Your task to perform on an android device: Go to Wikipedia Image 0: 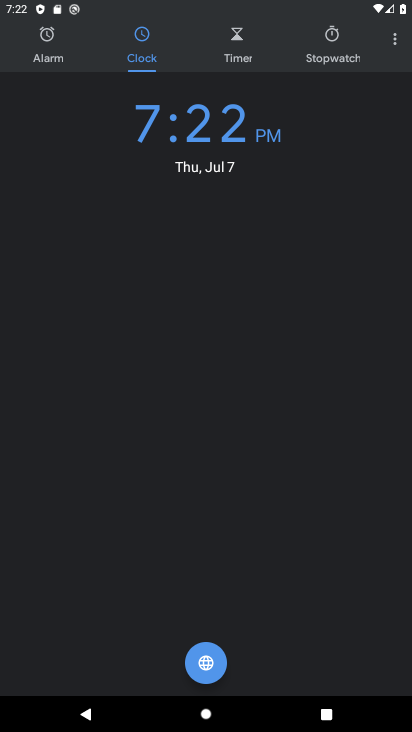
Step 0: press home button
Your task to perform on an android device: Go to Wikipedia Image 1: 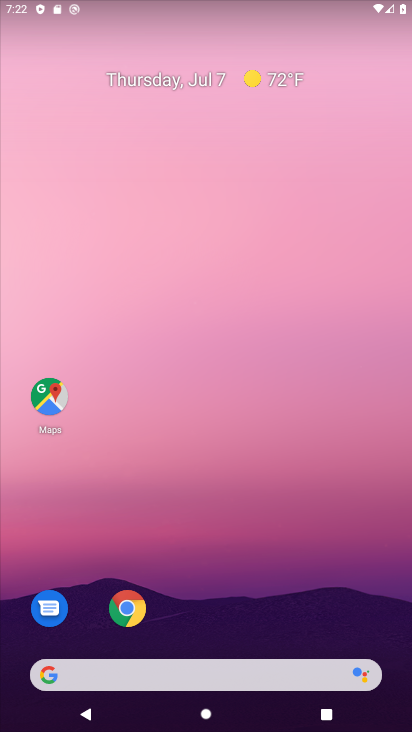
Step 1: click (136, 610)
Your task to perform on an android device: Go to Wikipedia Image 2: 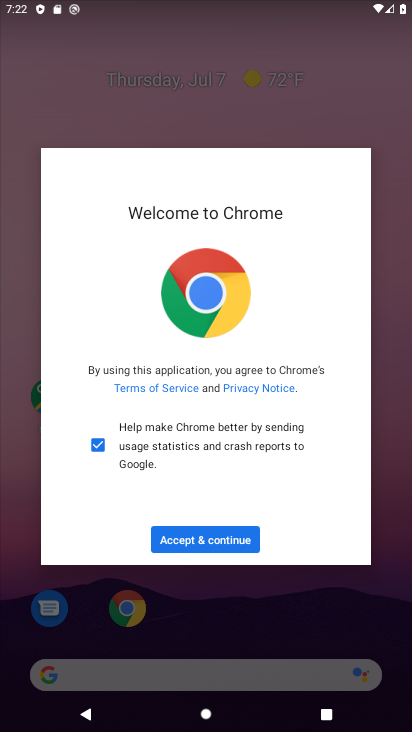
Step 2: click (253, 538)
Your task to perform on an android device: Go to Wikipedia Image 3: 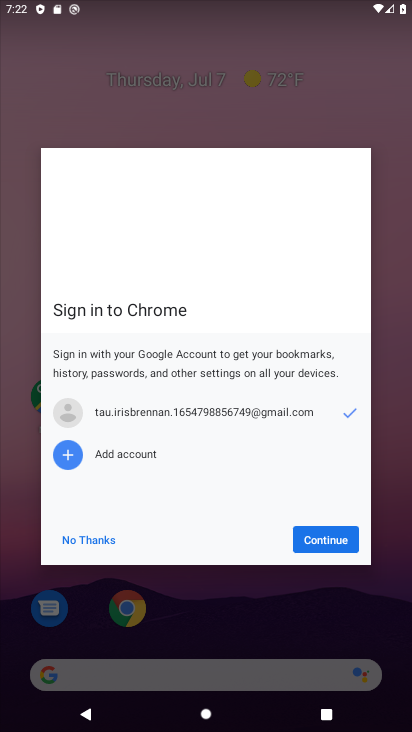
Step 3: click (347, 543)
Your task to perform on an android device: Go to Wikipedia Image 4: 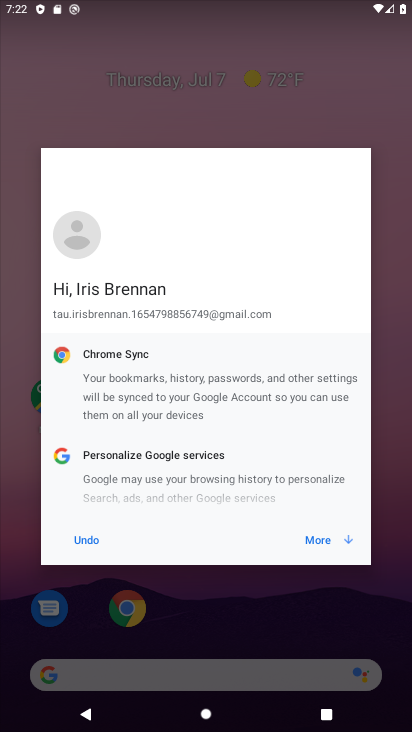
Step 4: click (326, 542)
Your task to perform on an android device: Go to Wikipedia Image 5: 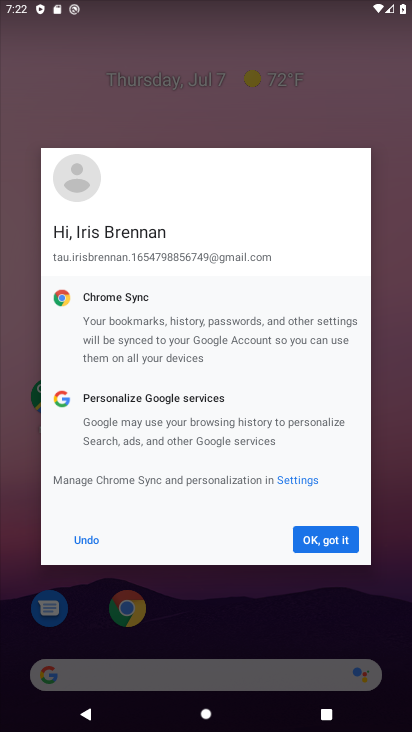
Step 5: click (326, 542)
Your task to perform on an android device: Go to Wikipedia Image 6: 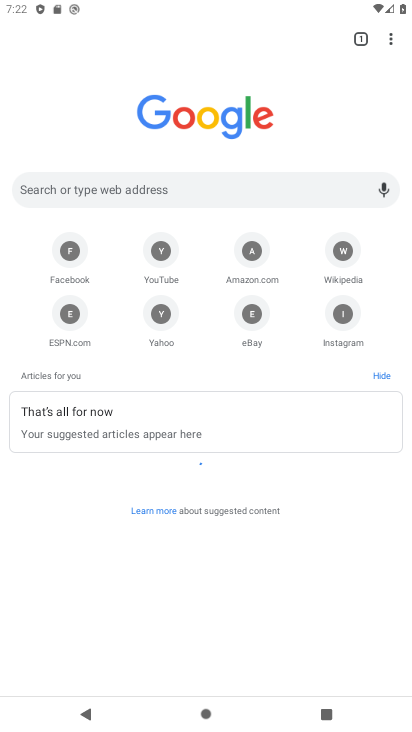
Step 6: click (142, 178)
Your task to perform on an android device: Go to Wikipedia Image 7: 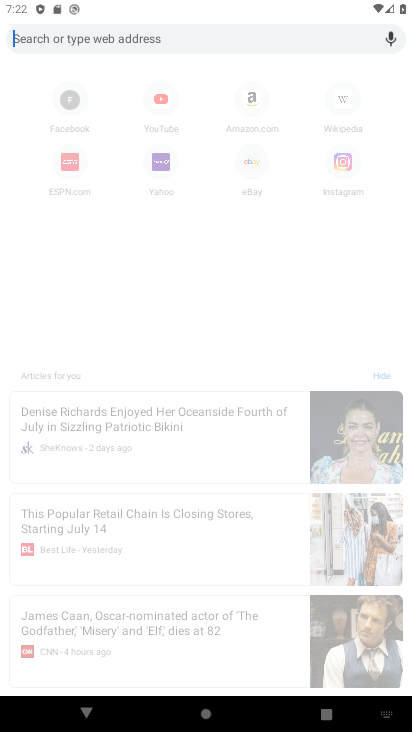
Step 7: type "Wikipedia"
Your task to perform on an android device: Go to Wikipedia Image 8: 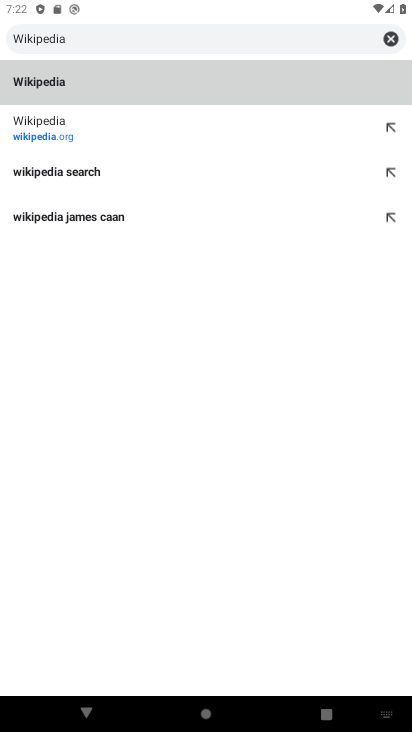
Step 8: click (53, 125)
Your task to perform on an android device: Go to Wikipedia Image 9: 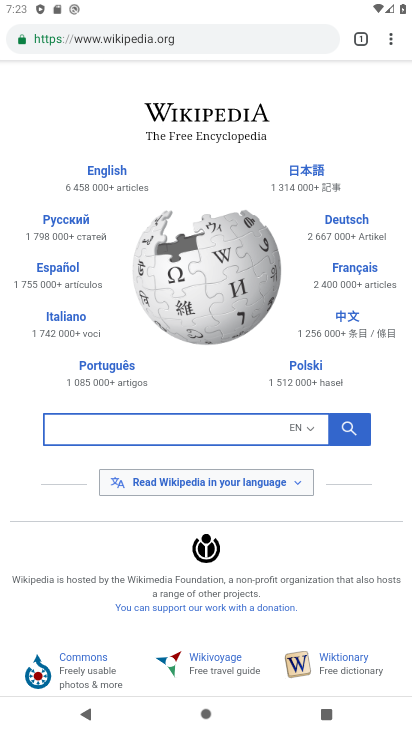
Step 9: task complete